Your task to perform on an android device: Open Reddit.com Image 0: 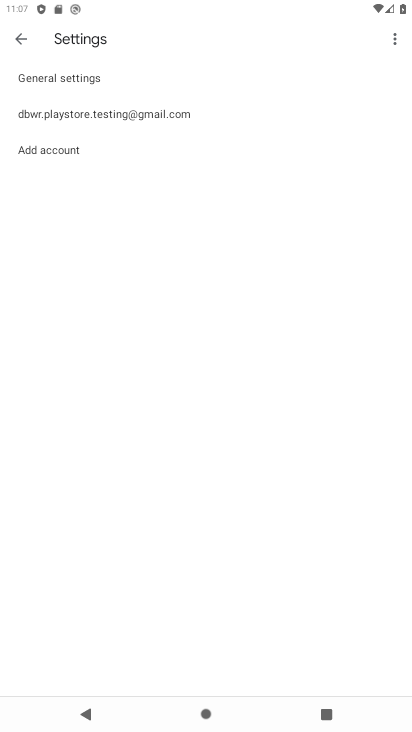
Step 0: press back button
Your task to perform on an android device: Open Reddit.com Image 1: 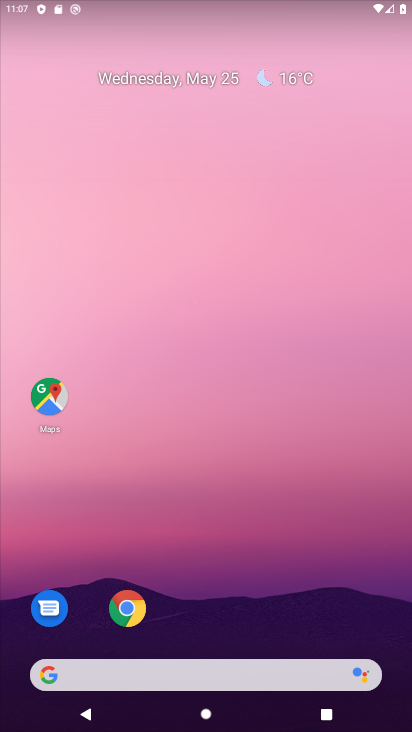
Step 1: drag from (233, 645) to (239, 143)
Your task to perform on an android device: Open Reddit.com Image 2: 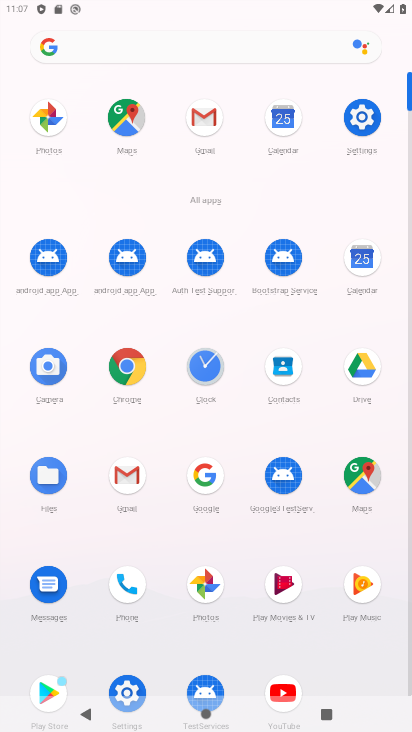
Step 2: click (117, 365)
Your task to perform on an android device: Open Reddit.com Image 3: 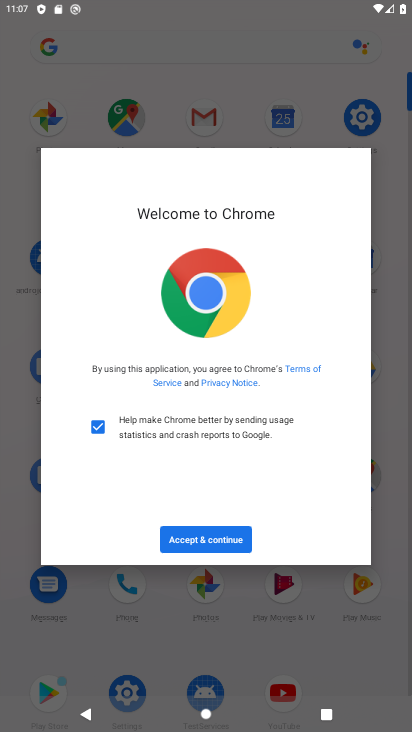
Step 3: click (206, 536)
Your task to perform on an android device: Open Reddit.com Image 4: 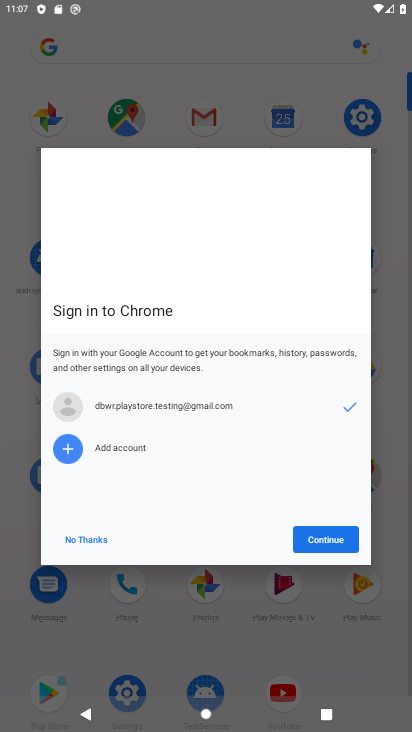
Step 4: click (318, 535)
Your task to perform on an android device: Open Reddit.com Image 5: 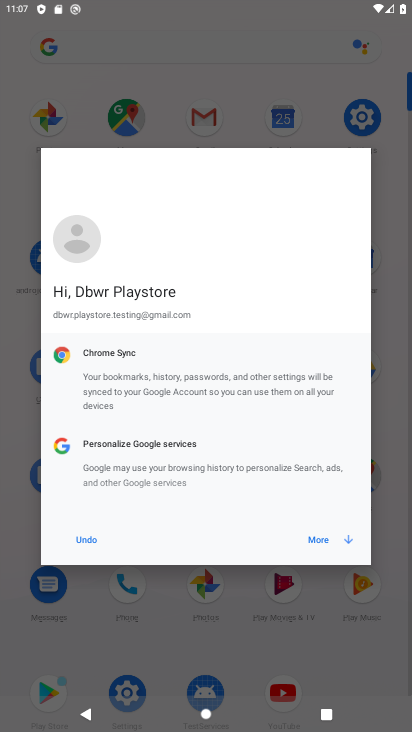
Step 5: click (316, 535)
Your task to perform on an android device: Open Reddit.com Image 6: 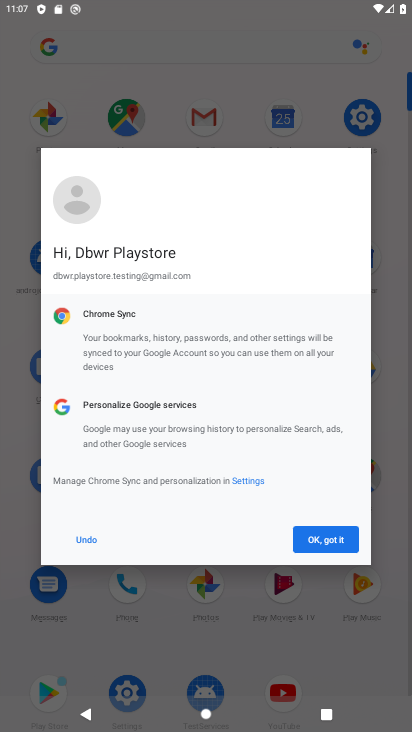
Step 6: click (316, 535)
Your task to perform on an android device: Open Reddit.com Image 7: 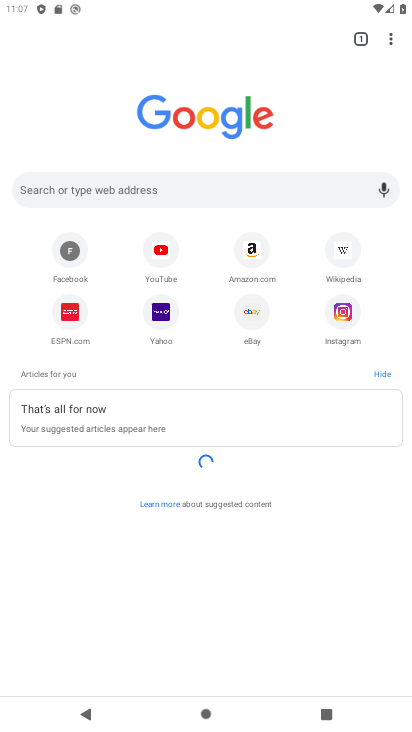
Step 7: click (127, 193)
Your task to perform on an android device: Open Reddit.com Image 8: 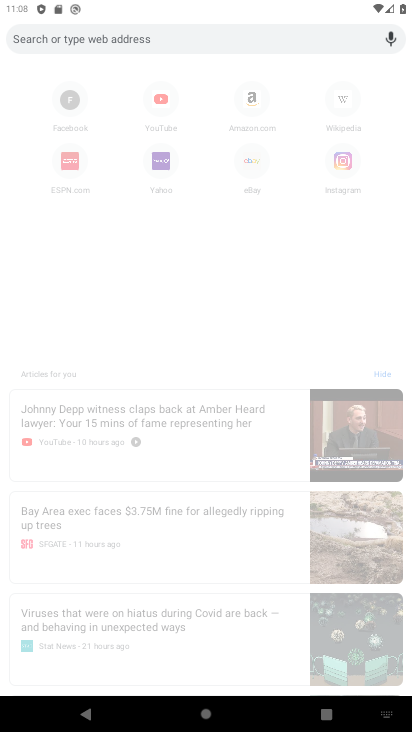
Step 8: type "reddit.com"
Your task to perform on an android device: Open Reddit.com Image 9: 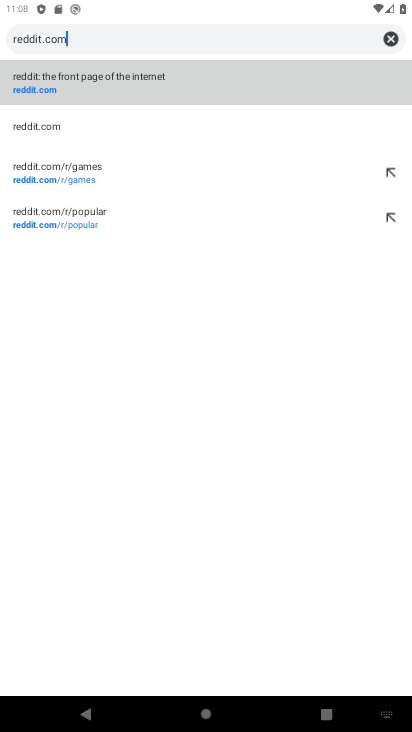
Step 9: click (104, 72)
Your task to perform on an android device: Open Reddit.com Image 10: 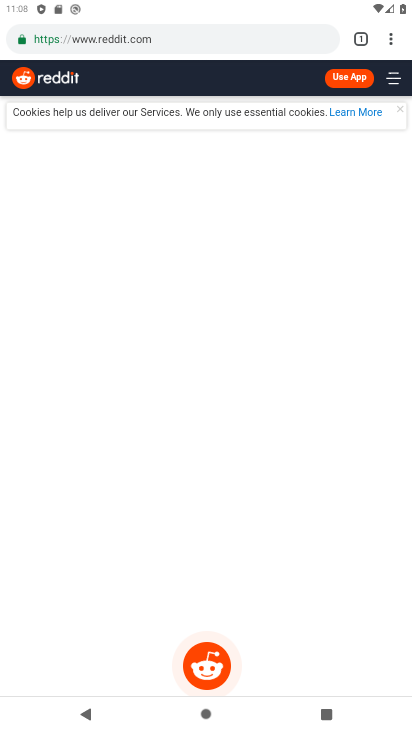
Step 10: task complete